Your task to perform on an android device: What's the weather going to be tomorrow? Image 0: 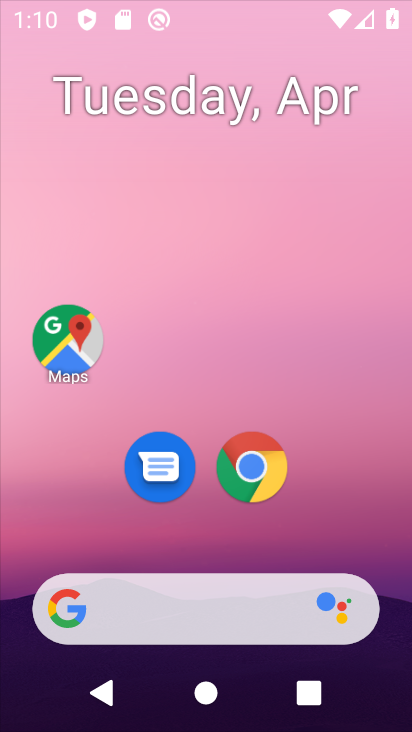
Step 0: drag from (385, 470) to (368, 182)
Your task to perform on an android device: What's the weather going to be tomorrow? Image 1: 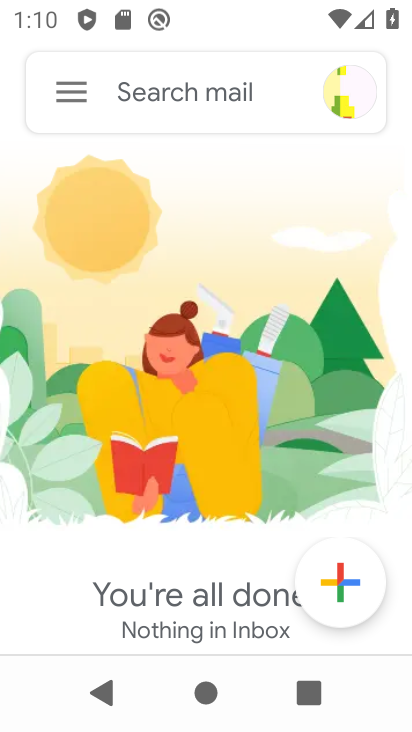
Step 1: press home button
Your task to perform on an android device: What's the weather going to be tomorrow? Image 2: 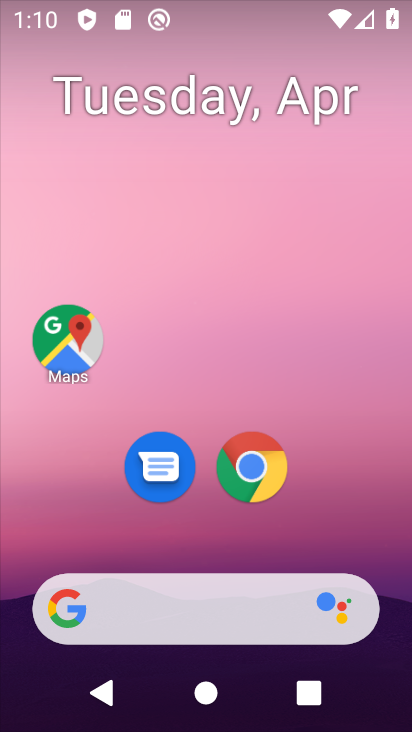
Step 2: click (239, 603)
Your task to perform on an android device: What's the weather going to be tomorrow? Image 3: 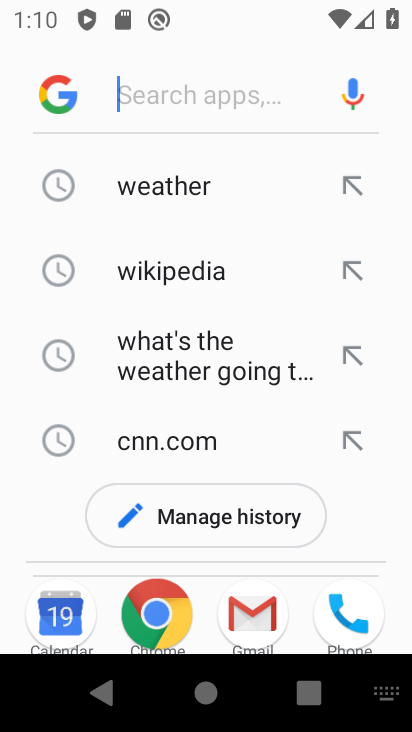
Step 3: click (174, 183)
Your task to perform on an android device: What's the weather going to be tomorrow? Image 4: 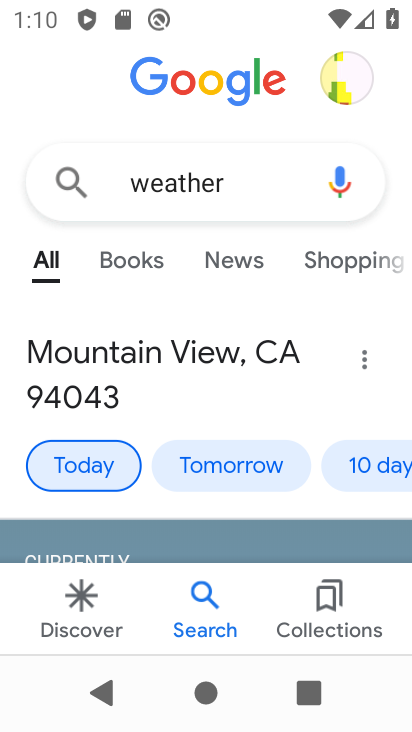
Step 4: click (234, 461)
Your task to perform on an android device: What's the weather going to be tomorrow? Image 5: 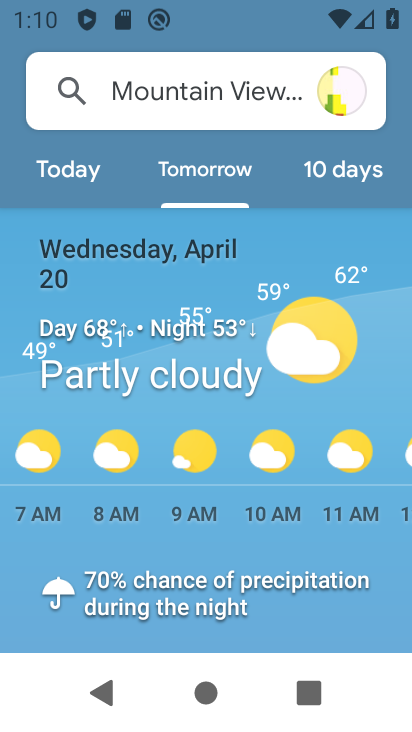
Step 5: task complete